Your task to perform on an android device: open wifi settings Image 0: 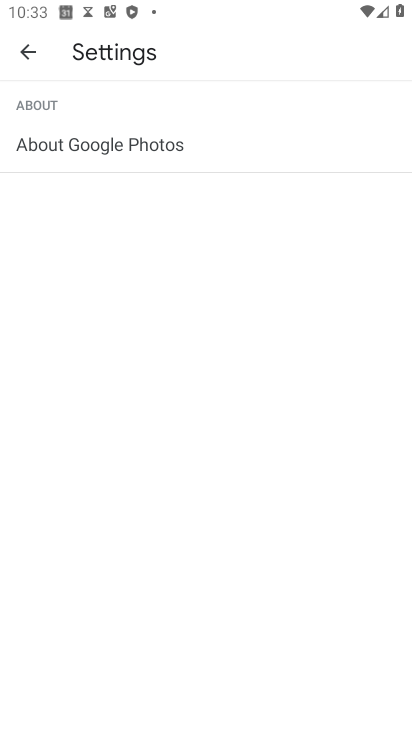
Step 0: press home button
Your task to perform on an android device: open wifi settings Image 1: 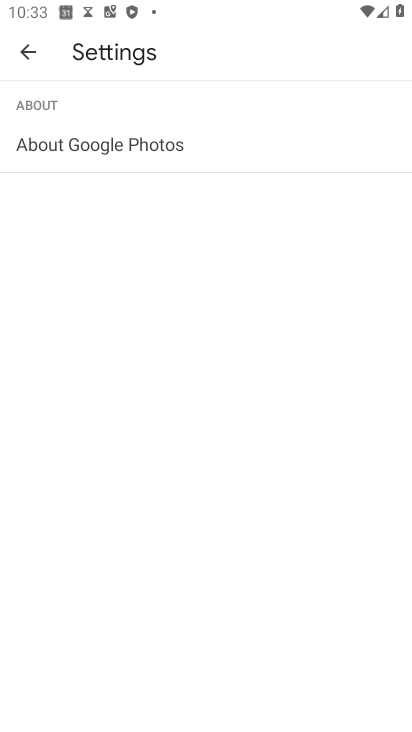
Step 1: press home button
Your task to perform on an android device: open wifi settings Image 2: 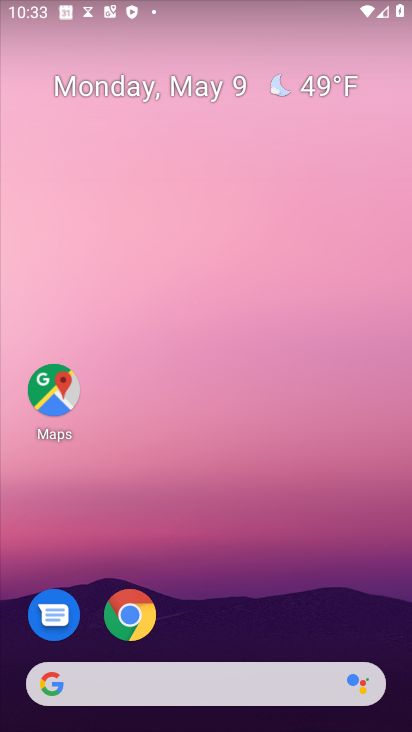
Step 2: drag from (254, 506) to (254, 57)
Your task to perform on an android device: open wifi settings Image 3: 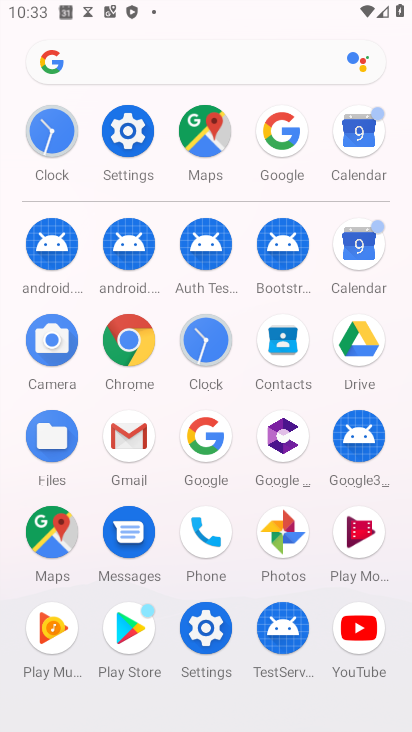
Step 3: click (133, 151)
Your task to perform on an android device: open wifi settings Image 4: 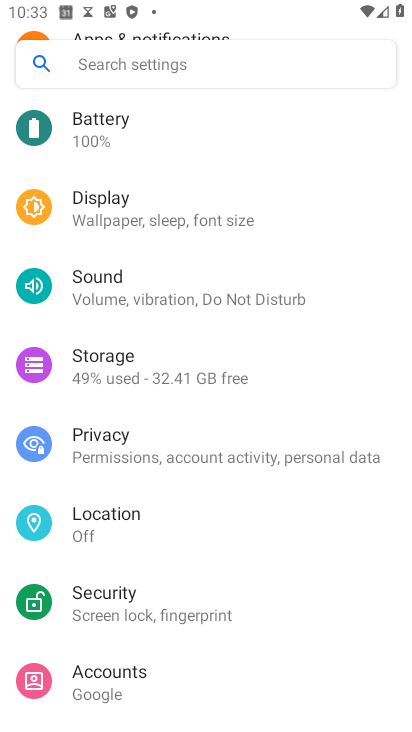
Step 4: drag from (174, 145) to (202, 594)
Your task to perform on an android device: open wifi settings Image 5: 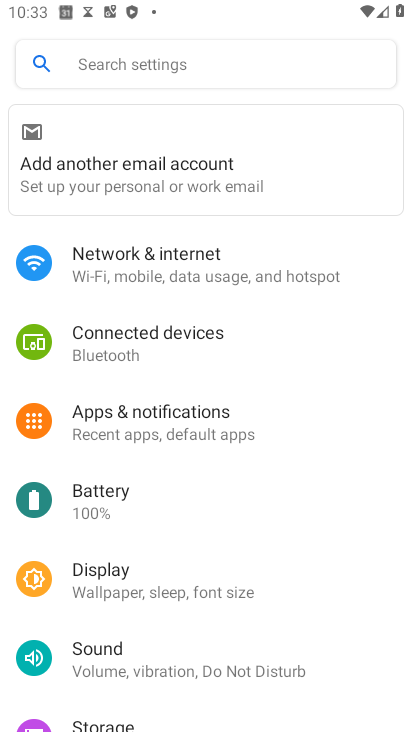
Step 5: click (186, 261)
Your task to perform on an android device: open wifi settings Image 6: 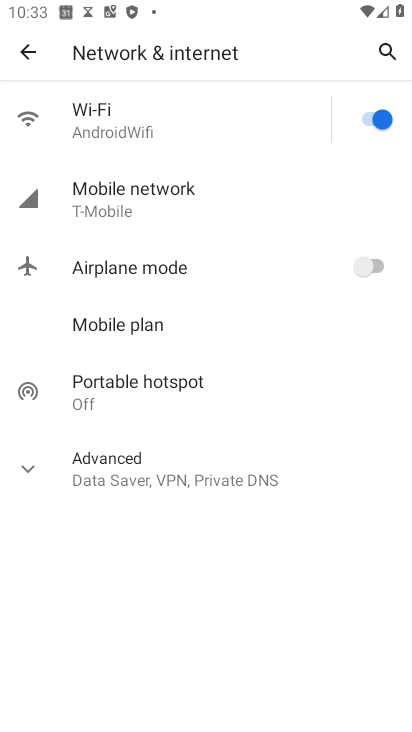
Step 6: click (169, 109)
Your task to perform on an android device: open wifi settings Image 7: 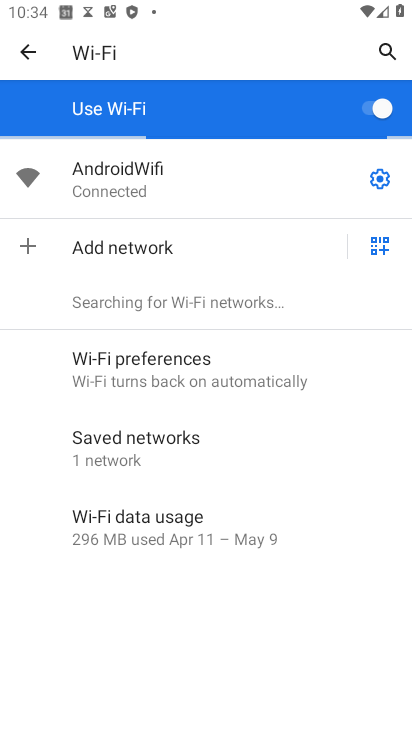
Step 7: task complete